Your task to perform on an android device: see tabs open on other devices in the chrome app Image 0: 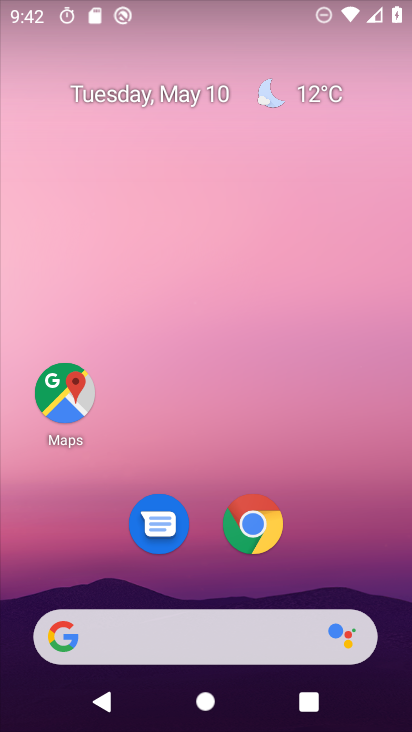
Step 0: click (261, 526)
Your task to perform on an android device: see tabs open on other devices in the chrome app Image 1: 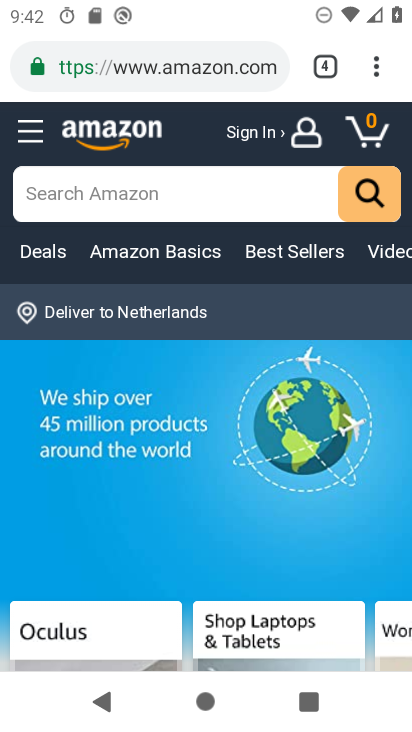
Step 1: click (371, 65)
Your task to perform on an android device: see tabs open on other devices in the chrome app Image 2: 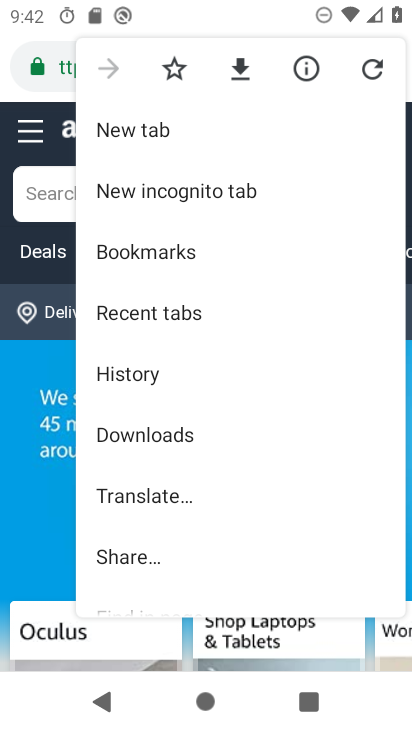
Step 2: click (164, 310)
Your task to perform on an android device: see tabs open on other devices in the chrome app Image 3: 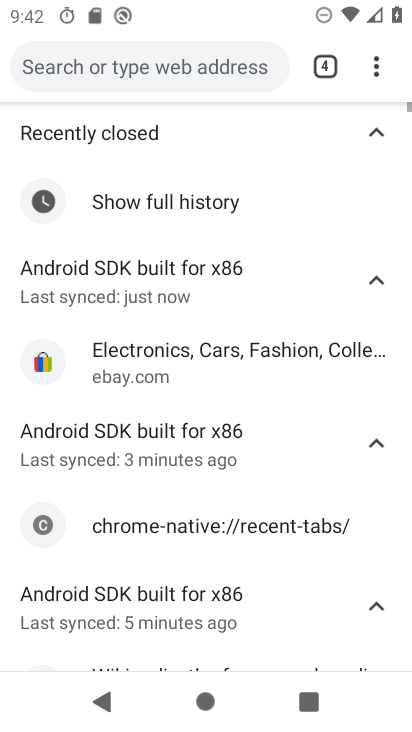
Step 3: task complete